Your task to perform on an android device: toggle improve location accuracy Image 0: 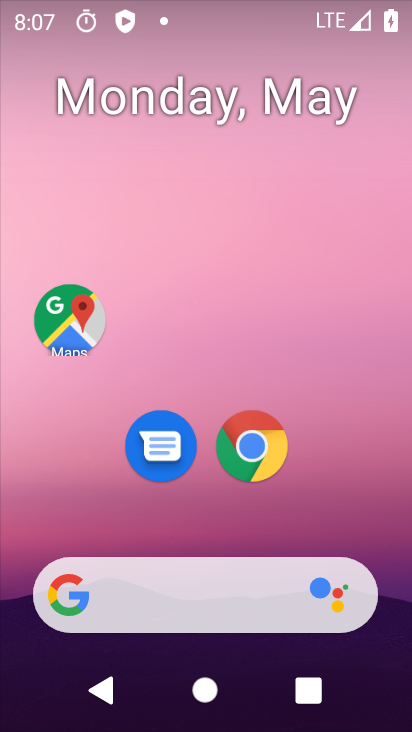
Step 0: drag from (314, 519) to (316, 8)
Your task to perform on an android device: toggle improve location accuracy Image 1: 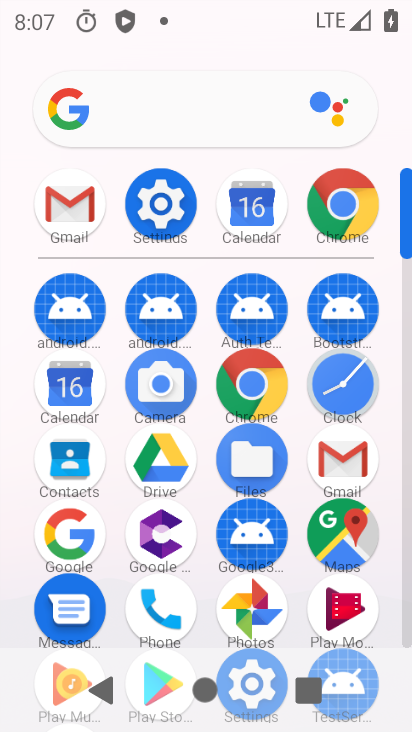
Step 1: click (165, 211)
Your task to perform on an android device: toggle improve location accuracy Image 2: 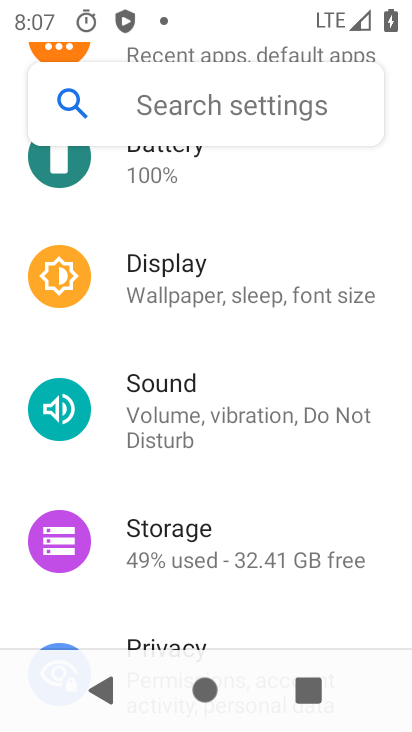
Step 2: drag from (310, 375) to (289, 138)
Your task to perform on an android device: toggle improve location accuracy Image 3: 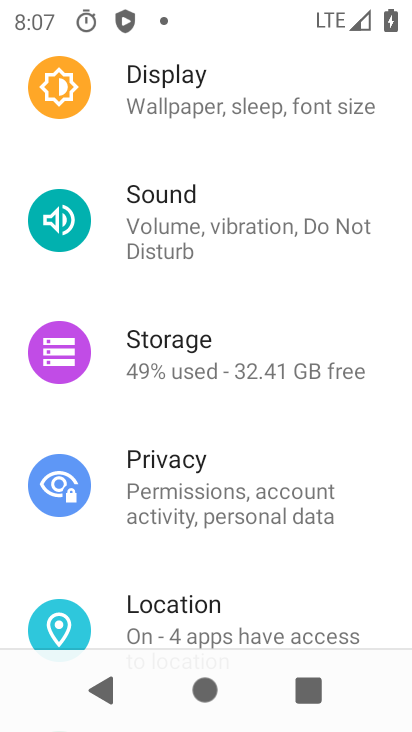
Step 3: drag from (284, 456) to (286, 215)
Your task to perform on an android device: toggle improve location accuracy Image 4: 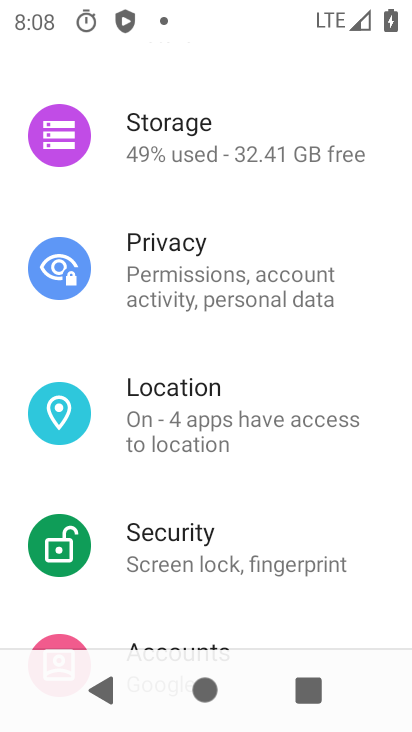
Step 4: click (194, 409)
Your task to perform on an android device: toggle improve location accuracy Image 5: 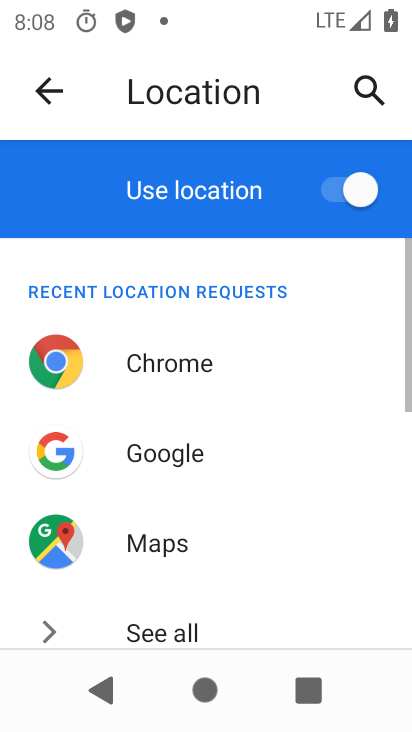
Step 5: drag from (213, 569) to (207, 79)
Your task to perform on an android device: toggle improve location accuracy Image 6: 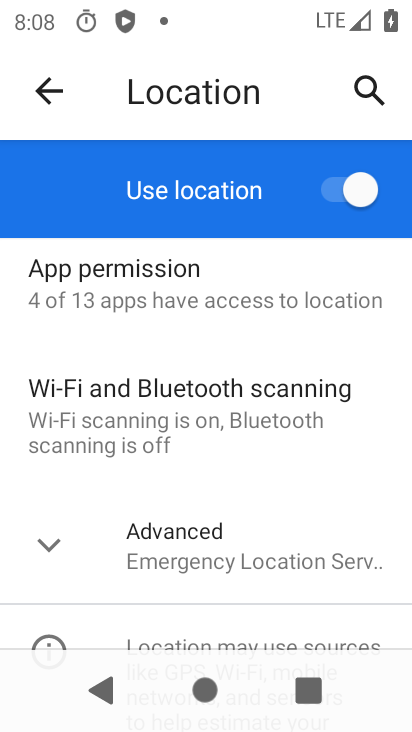
Step 6: click (45, 559)
Your task to perform on an android device: toggle improve location accuracy Image 7: 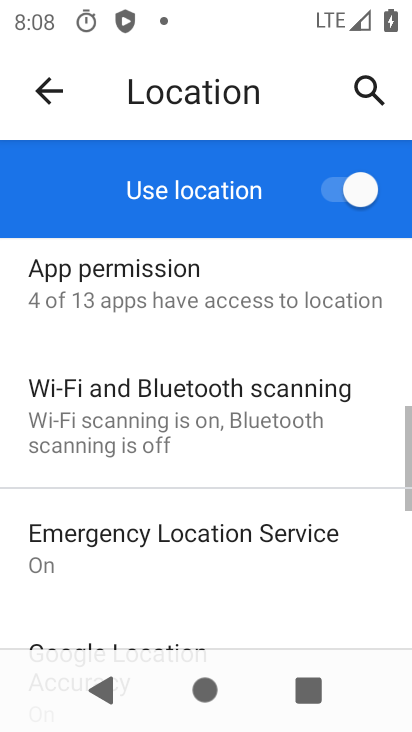
Step 7: drag from (149, 562) to (164, 198)
Your task to perform on an android device: toggle improve location accuracy Image 8: 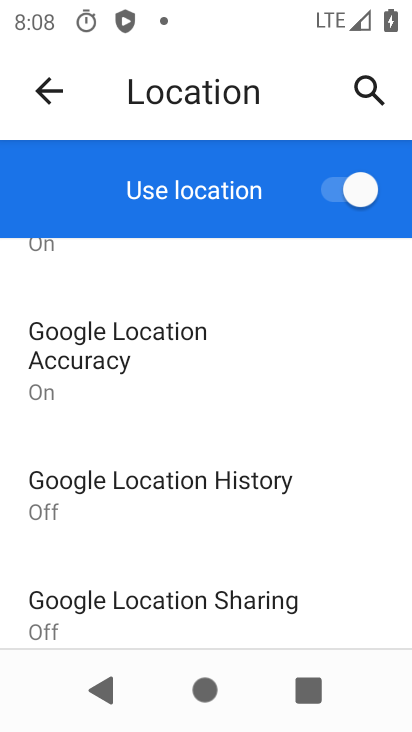
Step 8: click (83, 357)
Your task to perform on an android device: toggle improve location accuracy Image 9: 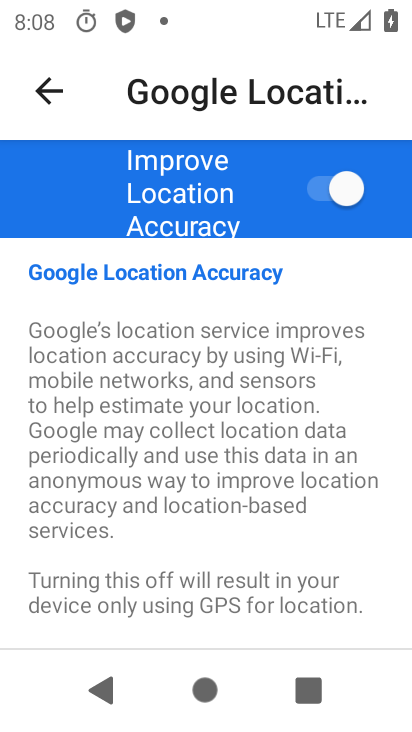
Step 9: click (345, 189)
Your task to perform on an android device: toggle improve location accuracy Image 10: 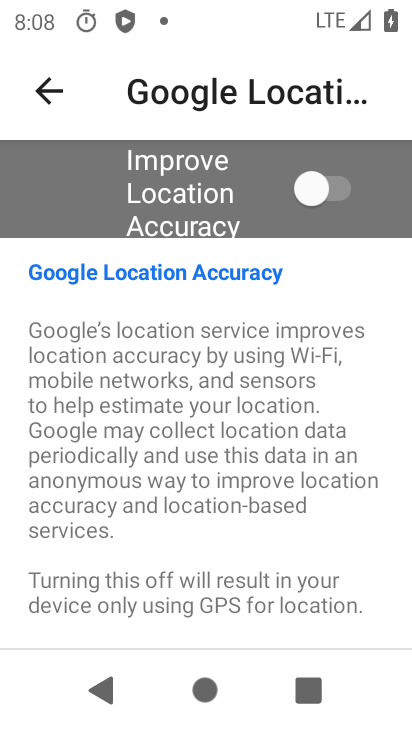
Step 10: task complete